Your task to perform on an android device: turn off improve location accuracy Image 0: 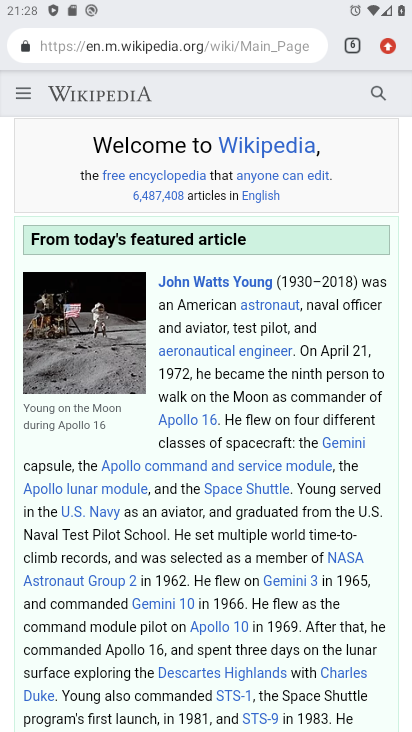
Step 0: press home button
Your task to perform on an android device: turn off improve location accuracy Image 1: 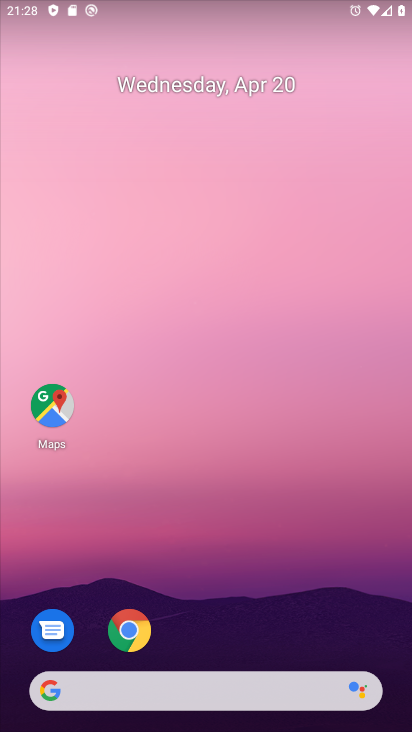
Step 1: drag from (294, 611) to (264, 73)
Your task to perform on an android device: turn off improve location accuracy Image 2: 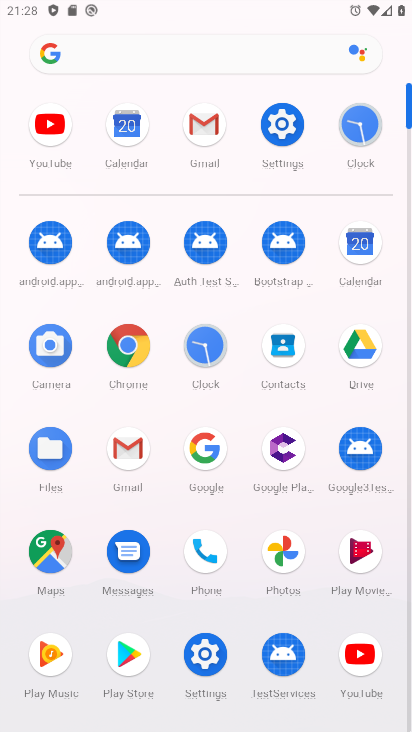
Step 2: click (281, 132)
Your task to perform on an android device: turn off improve location accuracy Image 3: 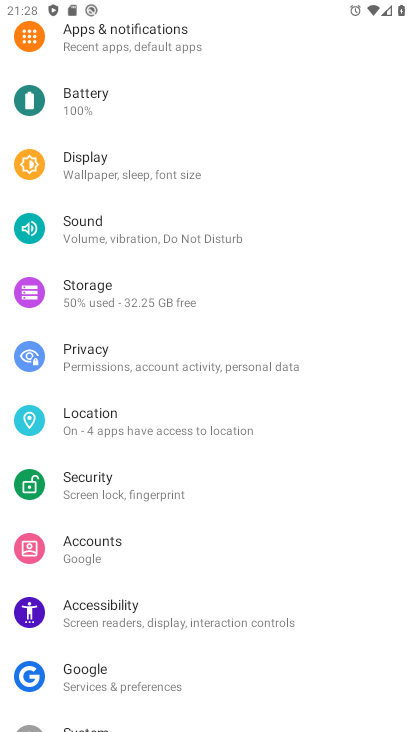
Step 3: click (139, 427)
Your task to perform on an android device: turn off improve location accuracy Image 4: 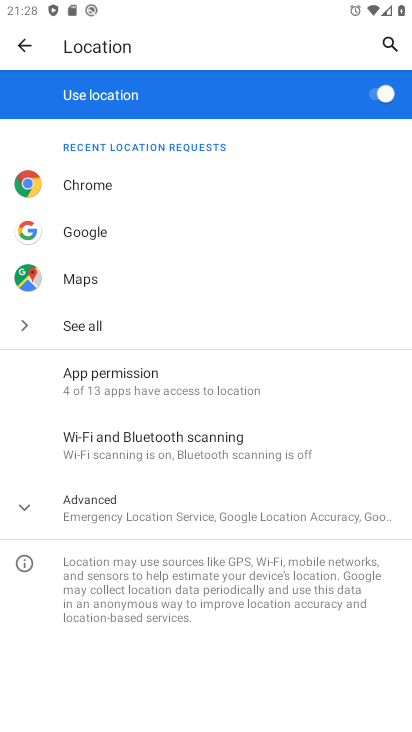
Step 4: click (154, 504)
Your task to perform on an android device: turn off improve location accuracy Image 5: 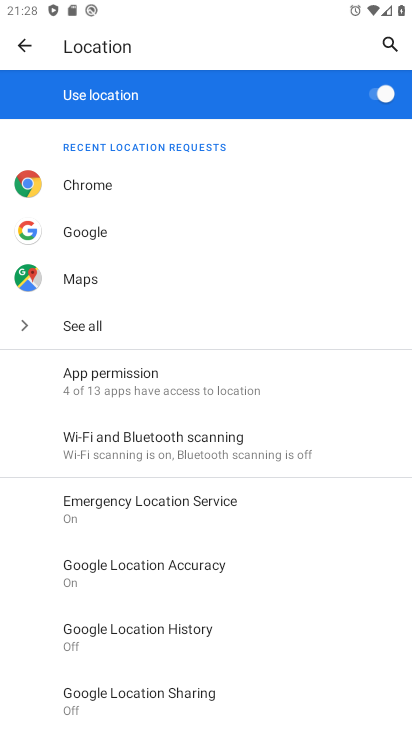
Step 5: click (164, 573)
Your task to perform on an android device: turn off improve location accuracy Image 6: 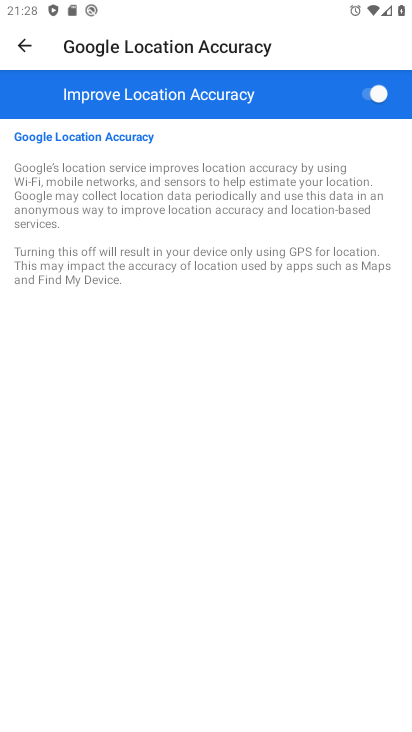
Step 6: click (367, 92)
Your task to perform on an android device: turn off improve location accuracy Image 7: 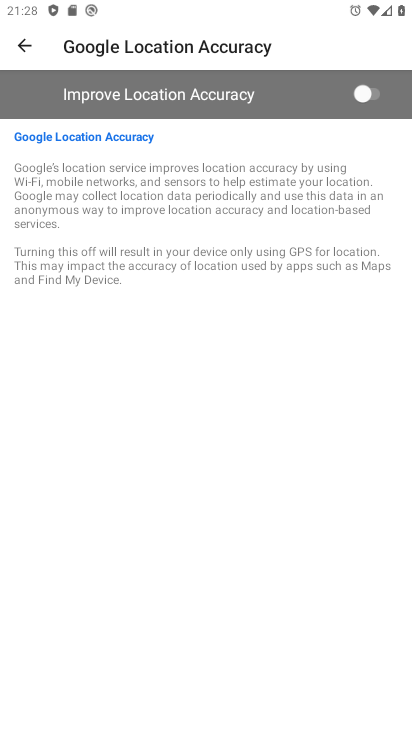
Step 7: task complete